Your task to perform on an android device: Go to display settings Image 0: 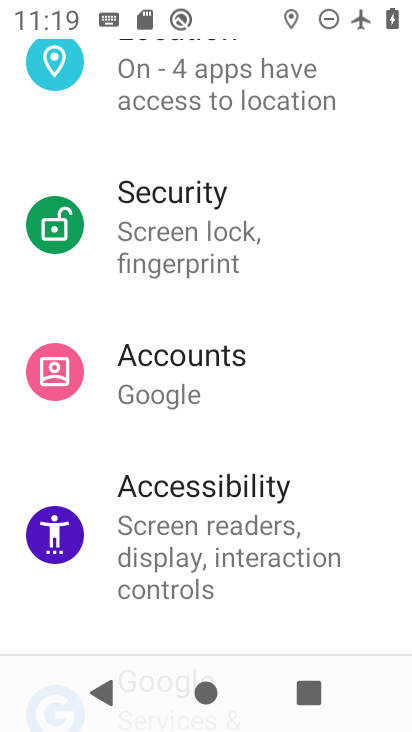
Step 0: drag from (226, 542) to (223, 319)
Your task to perform on an android device: Go to display settings Image 1: 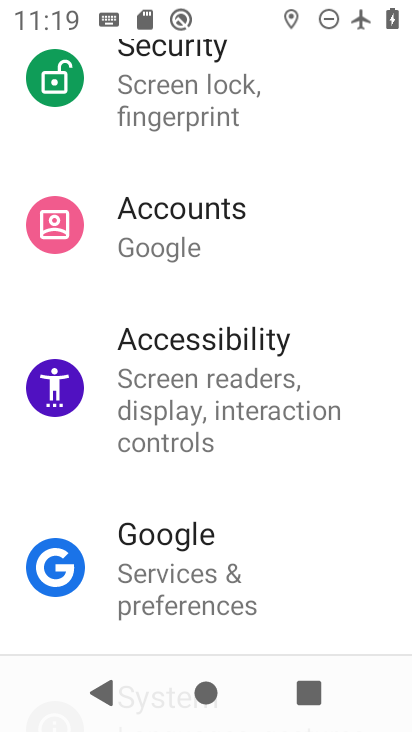
Step 1: drag from (272, 251) to (274, 508)
Your task to perform on an android device: Go to display settings Image 2: 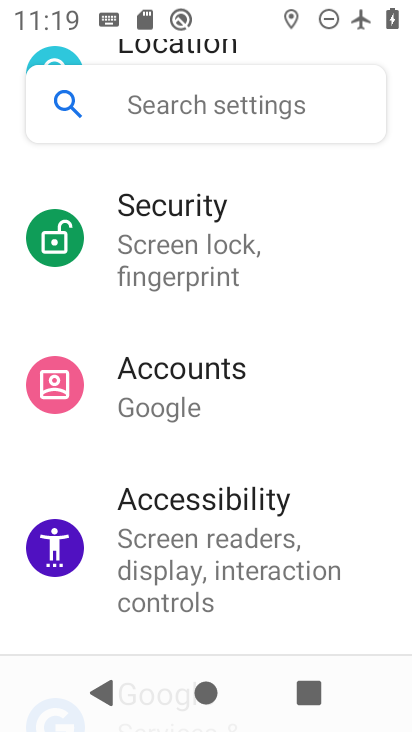
Step 2: drag from (241, 287) to (242, 528)
Your task to perform on an android device: Go to display settings Image 3: 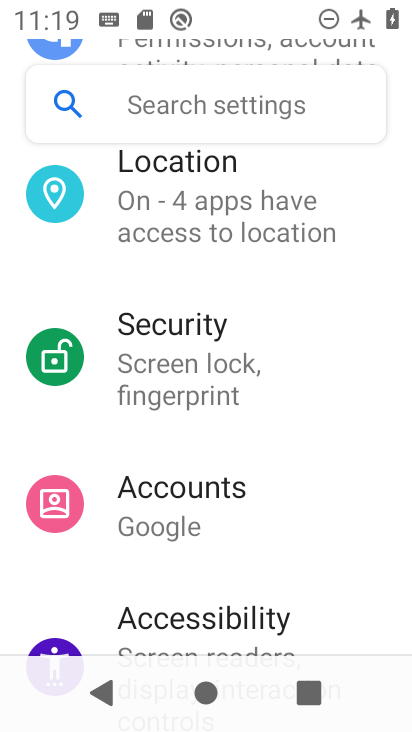
Step 3: drag from (239, 232) to (239, 505)
Your task to perform on an android device: Go to display settings Image 4: 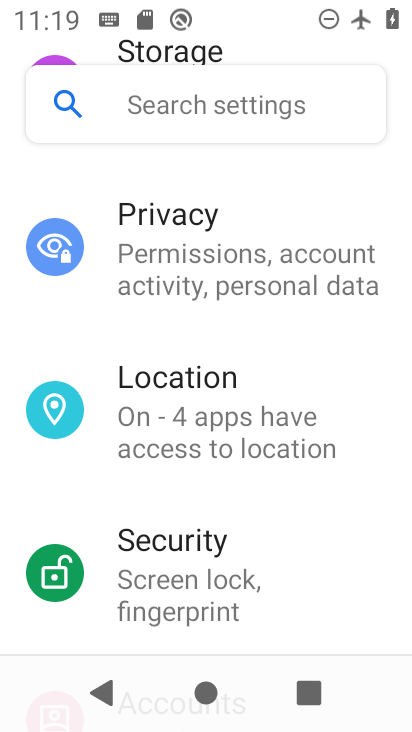
Step 4: drag from (223, 255) to (223, 575)
Your task to perform on an android device: Go to display settings Image 5: 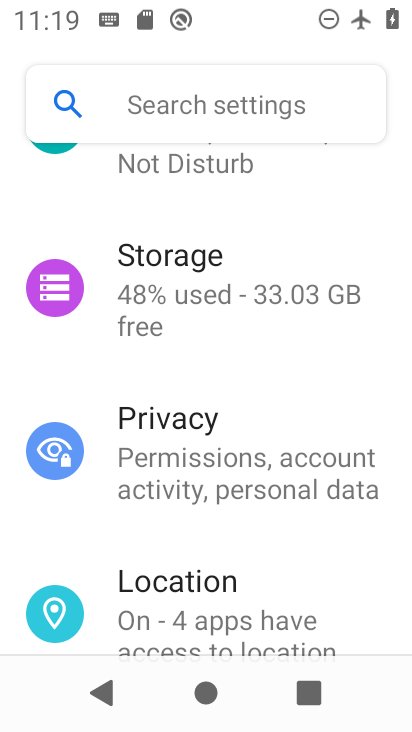
Step 5: drag from (210, 259) to (239, 459)
Your task to perform on an android device: Go to display settings Image 6: 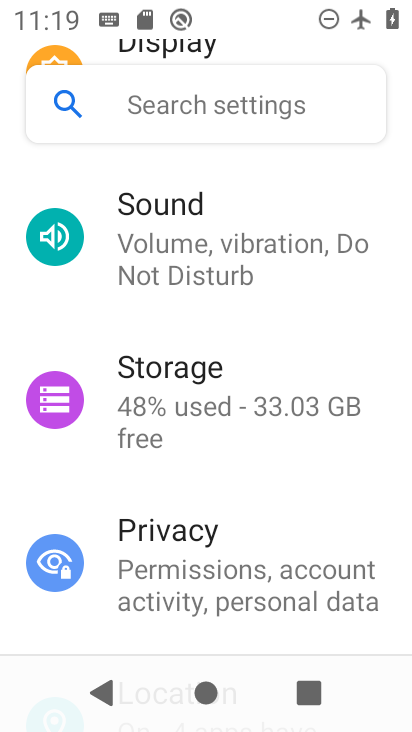
Step 6: drag from (253, 289) to (262, 495)
Your task to perform on an android device: Go to display settings Image 7: 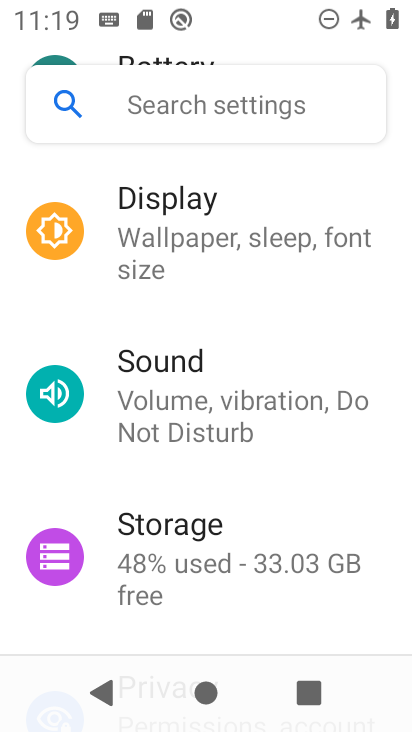
Step 7: click (226, 253)
Your task to perform on an android device: Go to display settings Image 8: 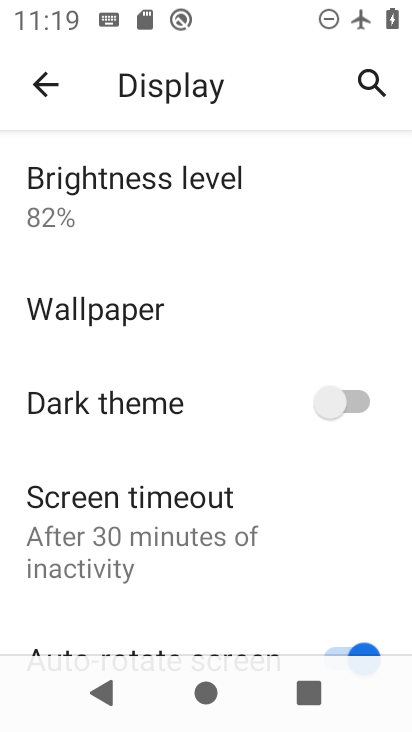
Step 8: task complete